Your task to perform on an android device: show emergency info Image 0: 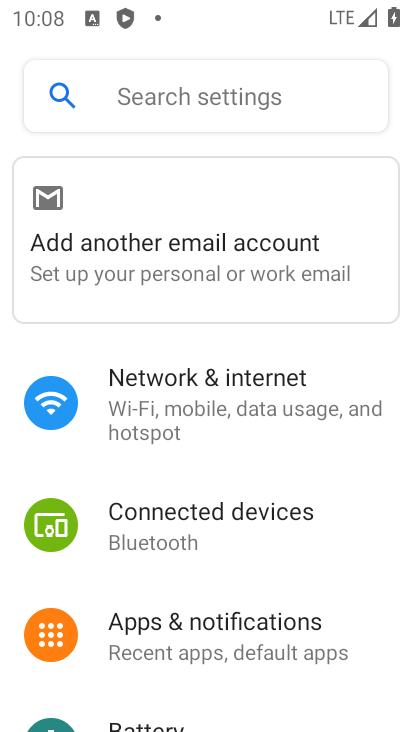
Step 0: drag from (277, 609) to (183, 3)
Your task to perform on an android device: show emergency info Image 1: 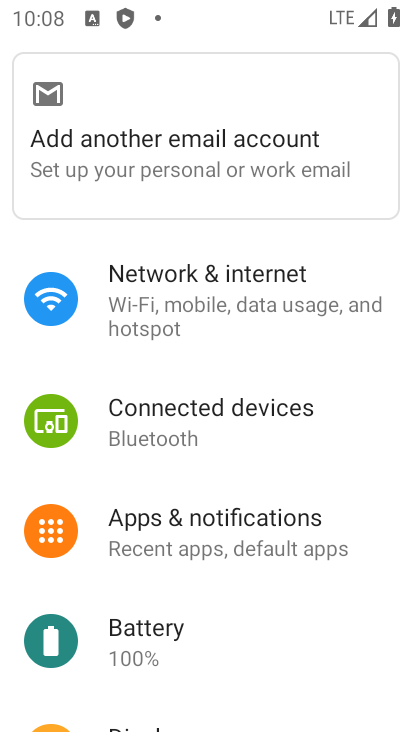
Step 1: drag from (269, 706) to (236, 37)
Your task to perform on an android device: show emergency info Image 2: 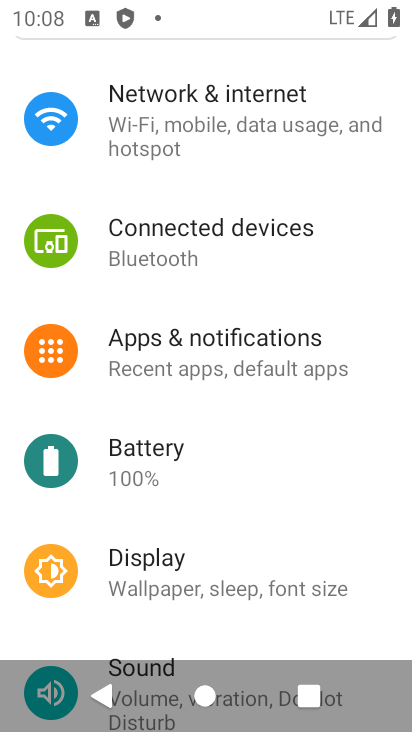
Step 2: drag from (342, 609) to (276, 15)
Your task to perform on an android device: show emergency info Image 3: 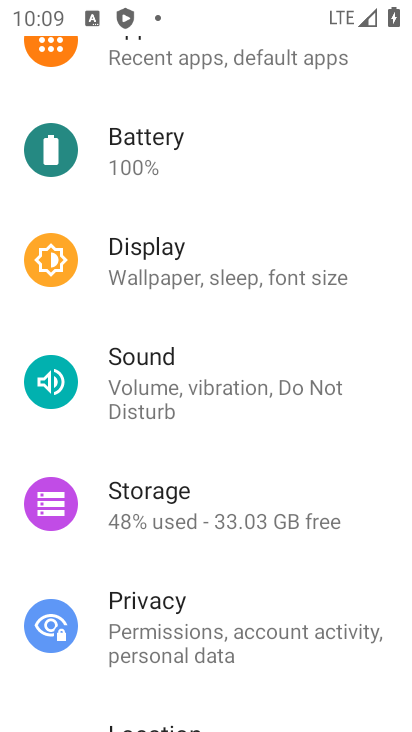
Step 3: drag from (326, 495) to (294, 31)
Your task to perform on an android device: show emergency info Image 4: 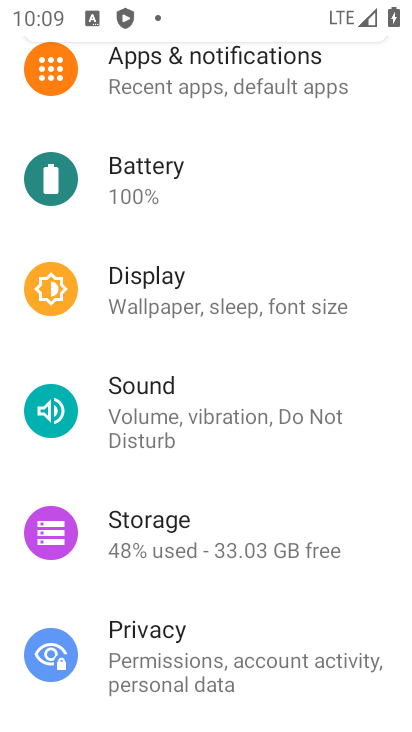
Step 4: drag from (335, 681) to (252, 2)
Your task to perform on an android device: show emergency info Image 5: 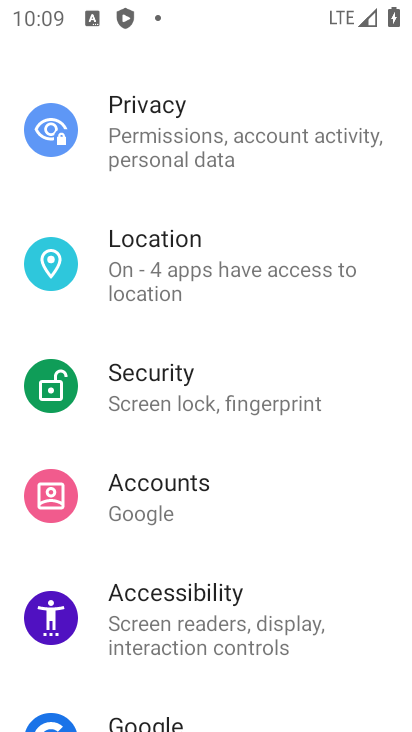
Step 5: drag from (328, 564) to (300, 7)
Your task to perform on an android device: show emergency info Image 6: 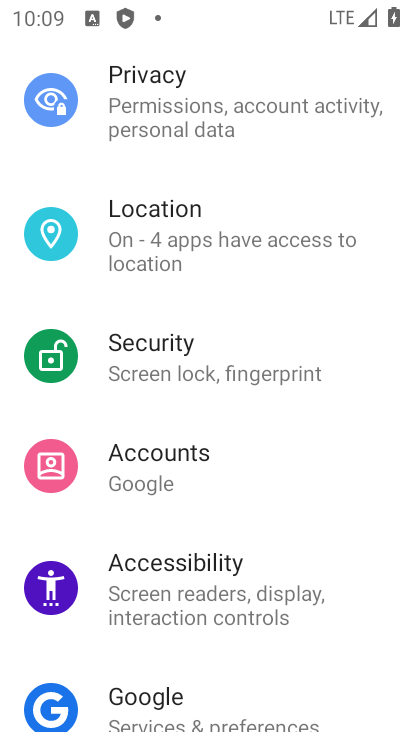
Step 6: drag from (350, 690) to (304, 9)
Your task to perform on an android device: show emergency info Image 7: 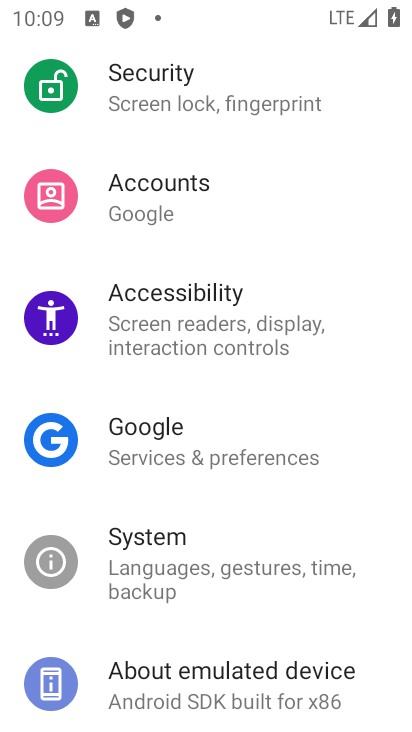
Step 7: drag from (324, 657) to (237, 5)
Your task to perform on an android device: show emergency info Image 8: 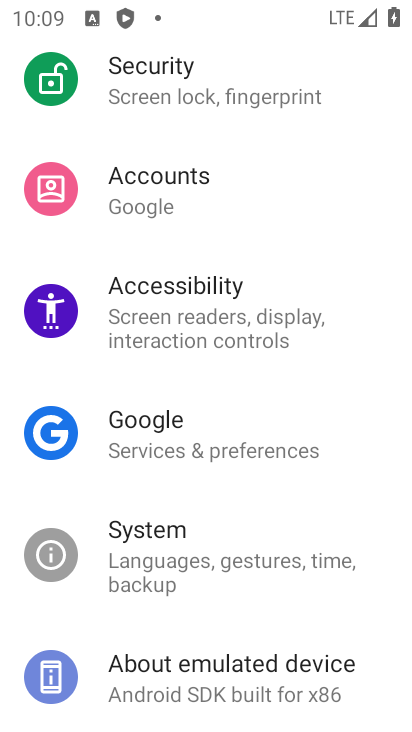
Step 8: click (187, 678)
Your task to perform on an android device: show emergency info Image 9: 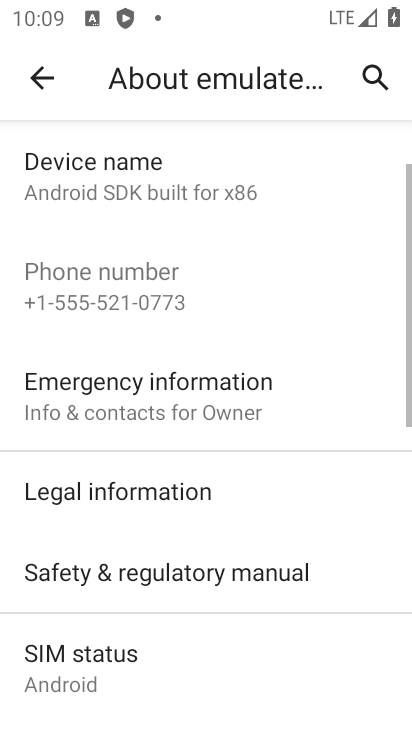
Step 9: click (198, 388)
Your task to perform on an android device: show emergency info Image 10: 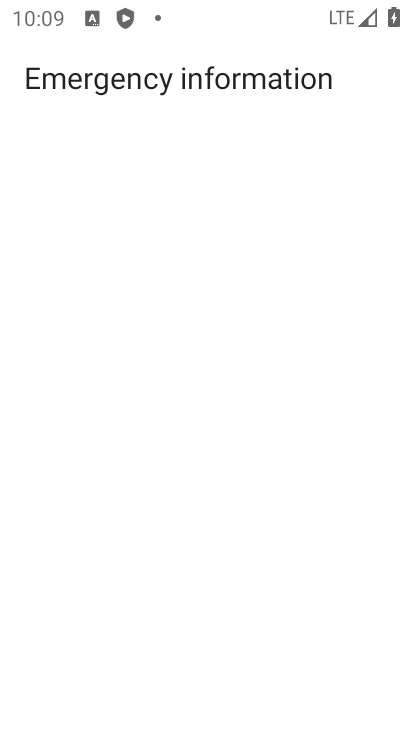
Step 10: task complete